Your task to perform on an android device: Open Google Maps Image 0: 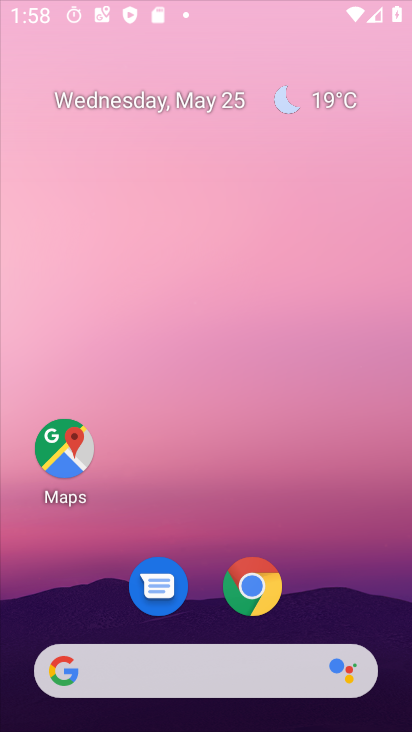
Step 0: drag from (300, 447) to (268, 109)
Your task to perform on an android device: Open Google Maps Image 1: 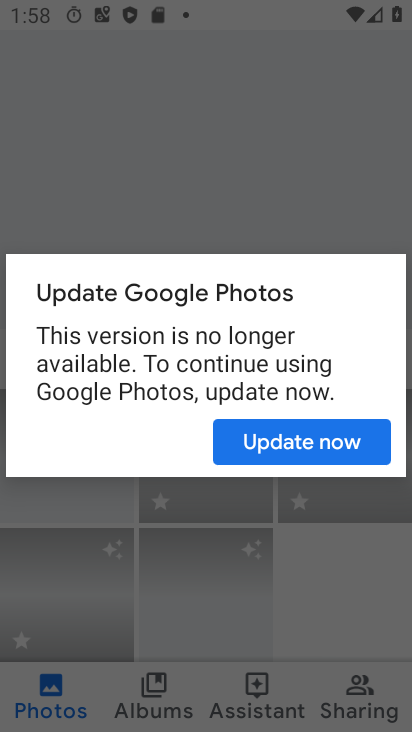
Step 1: press home button
Your task to perform on an android device: Open Google Maps Image 2: 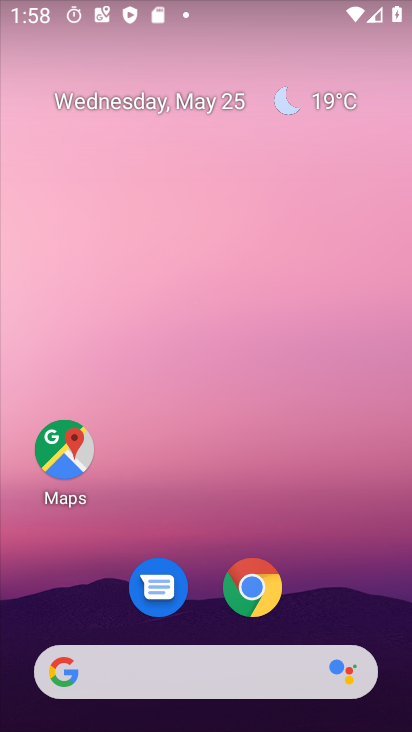
Step 2: click (61, 447)
Your task to perform on an android device: Open Google Maps Image 3: 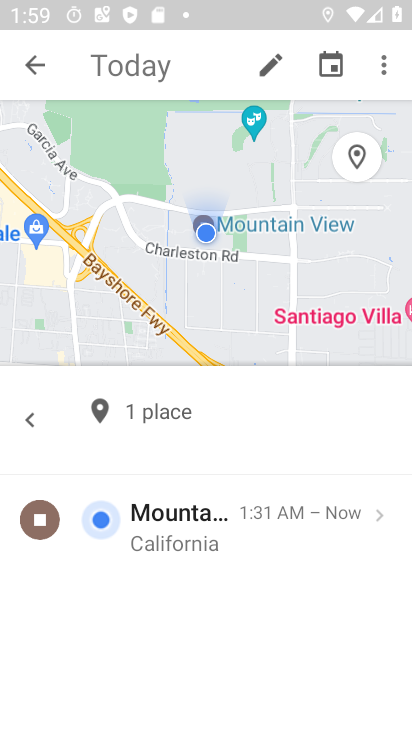
Step 3: task complete